Your task to perform on an android device: Go to Maps Image 0: 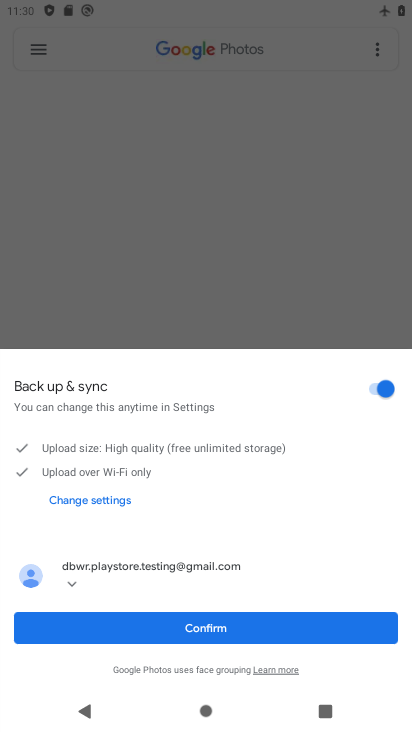
Step 0: press home button
Your task to perform on an android device: Go to Maps Image 1: 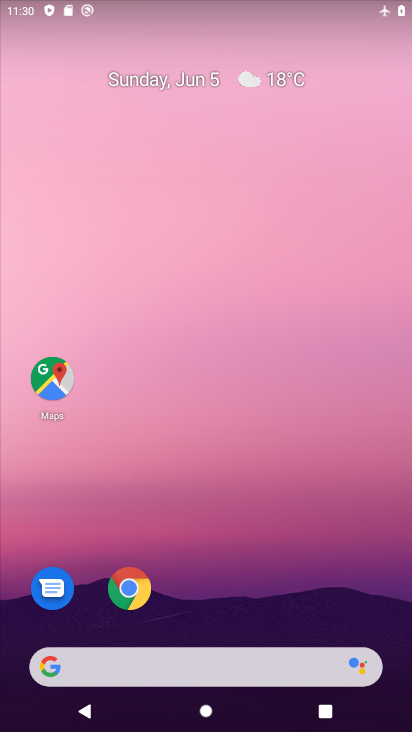
Step 1: click (59, 386)
Your task to perform on an android device: Go to Maps Image 2: 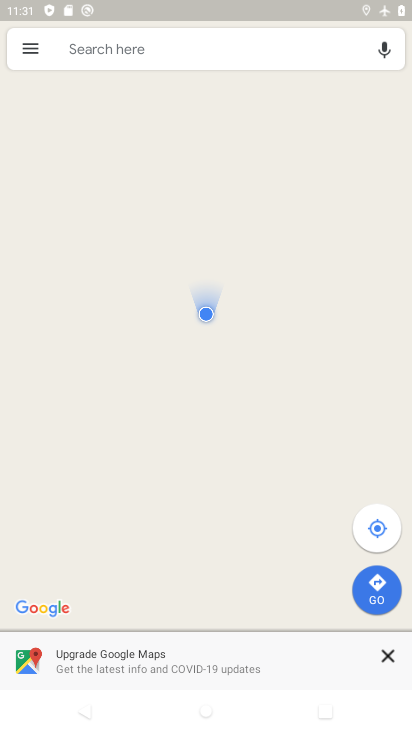
Step 2: task complete